Your task to perform on an android device: open a bookmark in the chrome app Image 0: 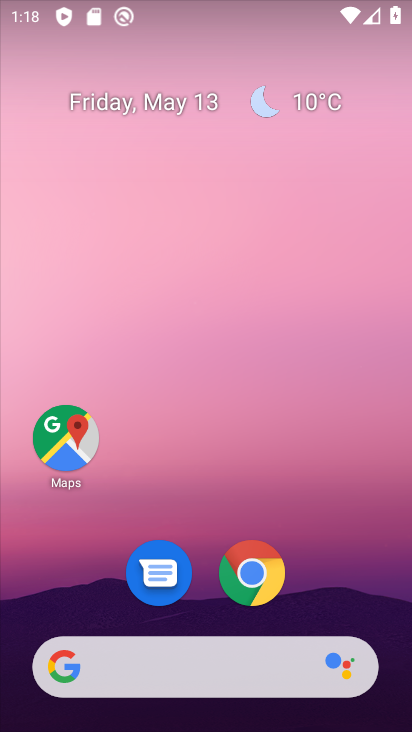
Step 0: drag from (298, 501) to (207, 13)
Your task to perform on an android device: open a bookmark in the chrome app Image 1: 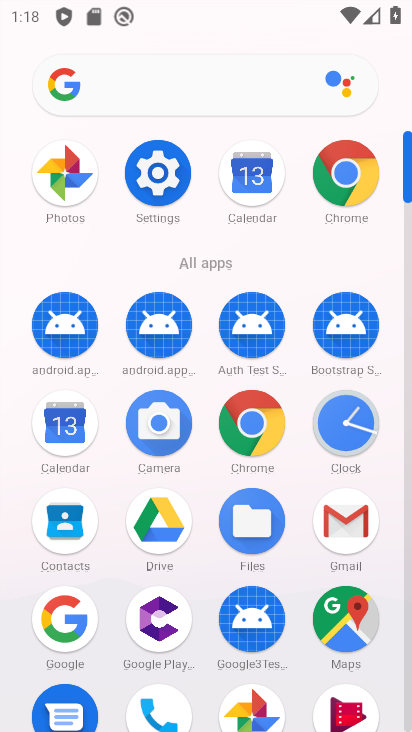
Step 1: drag from (8, 577) to (2, 296)
Your task to perform on an android device: open a bookmark in the chrome app Image 2: 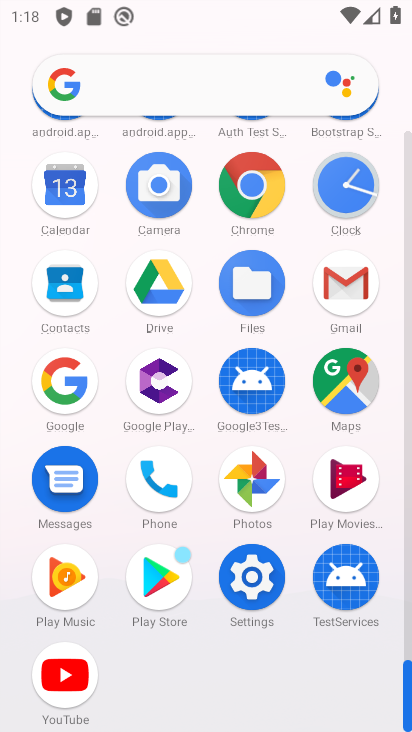
Step 2: click (252, 179)
Your task to perform on an android device: open a bookmark in the chrome app Image 3: 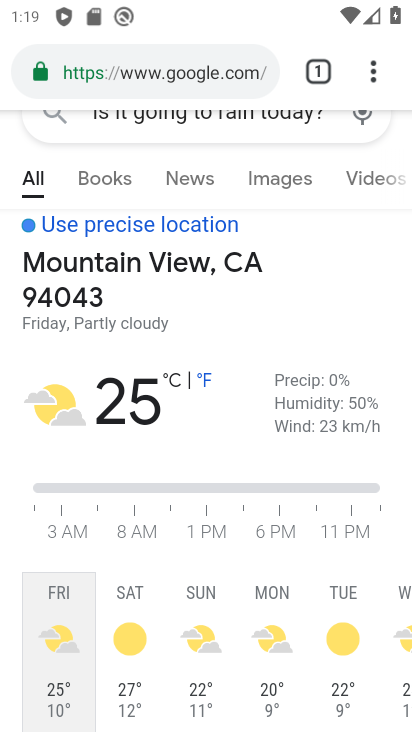
Step 3: task complete